Your task to perform on an android device: open the mobile data screen to see how much data has been used Image 0: 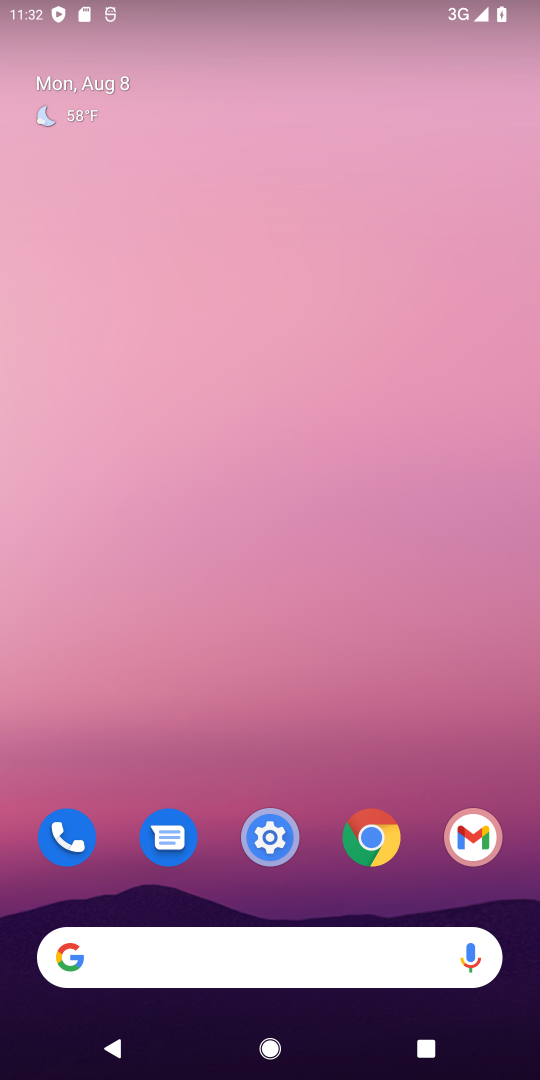
Step 0: click (268, 834)
Your task to perform on an android device: open the mobile data screen to see how much data has been used Image 1: 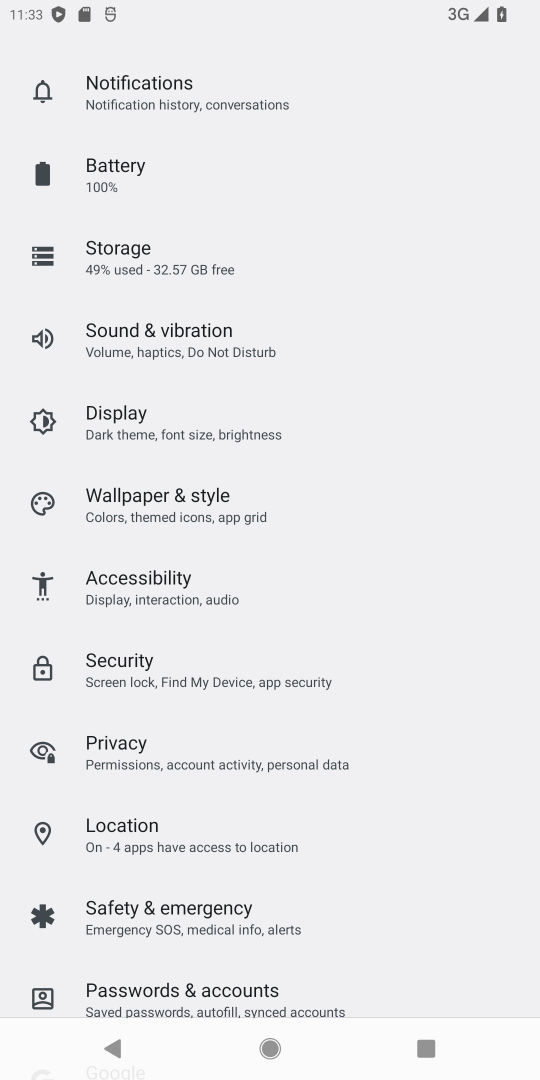
Step 1: drag from (269, 176) to (252, 824)
Your task to perform on an android device: open the mobile data screen to see how much data has been used Image 2: 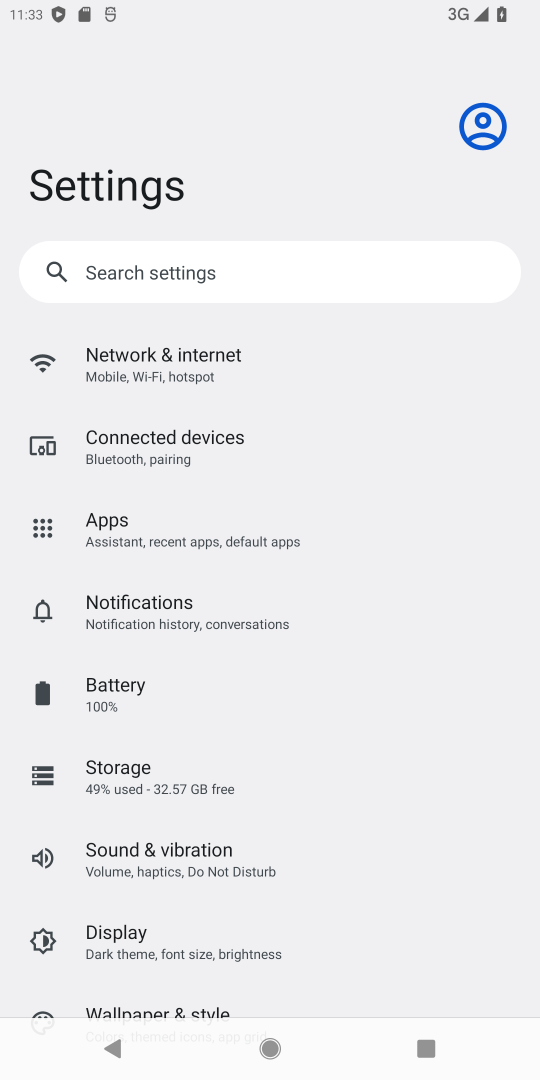
Step 2: click (144, 353)
Your task to perform on an android device: open the mobile data screen to see how much data has been used Image 3: 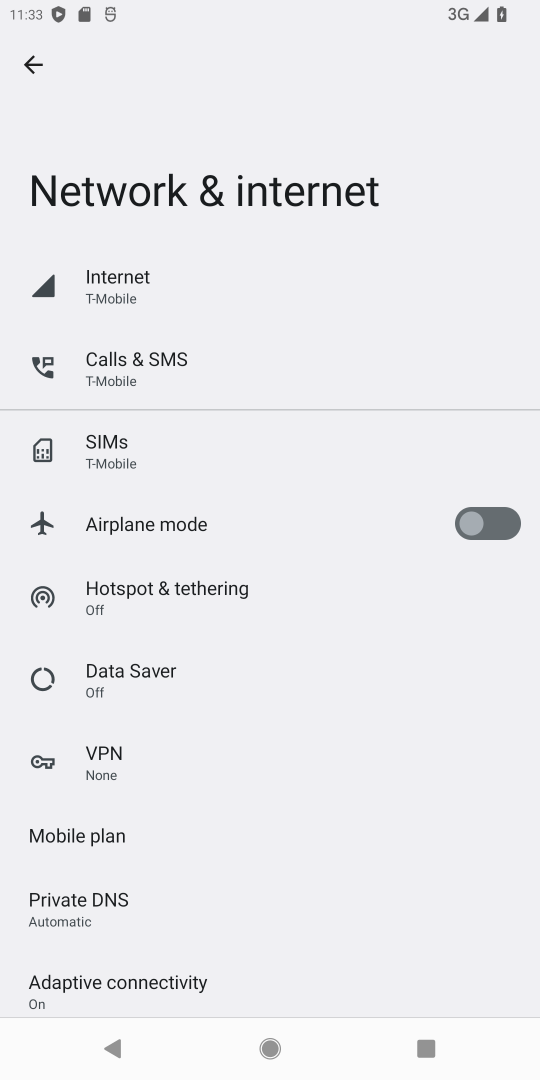
Step 3: click (99, 276)
Your task to perform on an android device: open the mobile data screen to see how much data has been used Image 4: 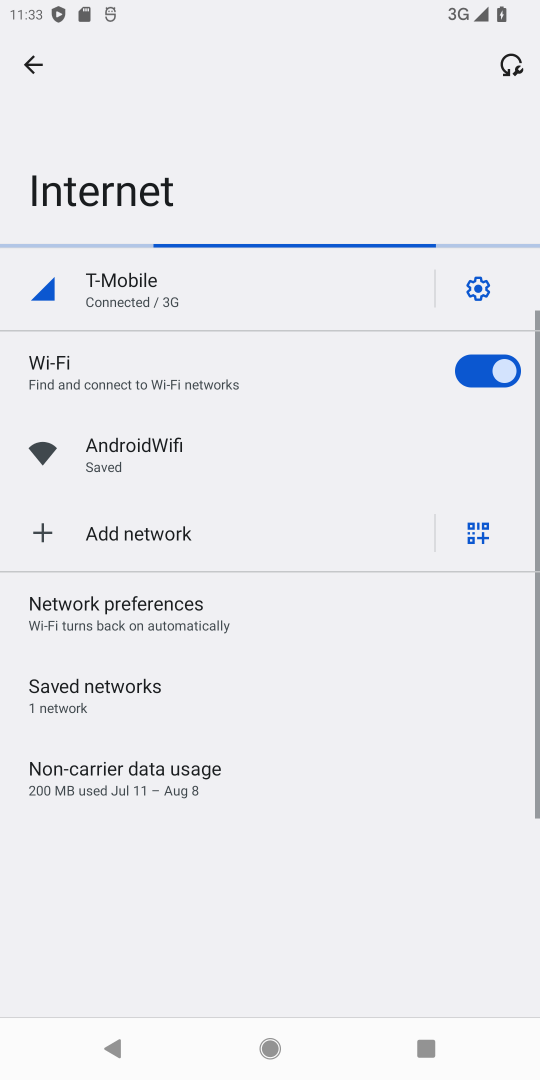
Step 4: click (72, 274)
Your task to perform on an android device: open the mobile data screen to see how much data has been used Image 5: 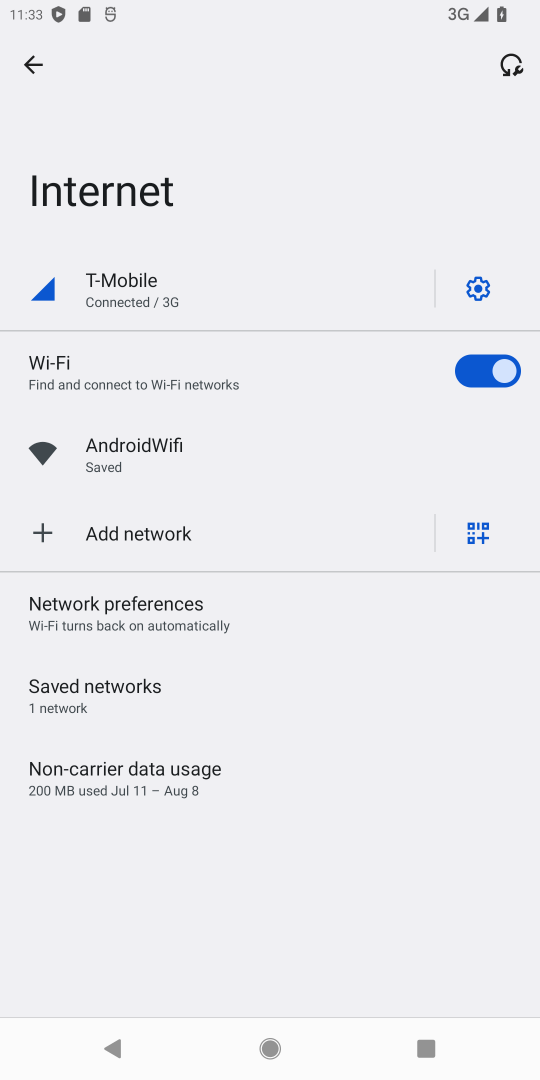
Step 5: click (109, 775)
Your task to perform on an android device: open the mobile data screen to see how much data has been used Image 6: 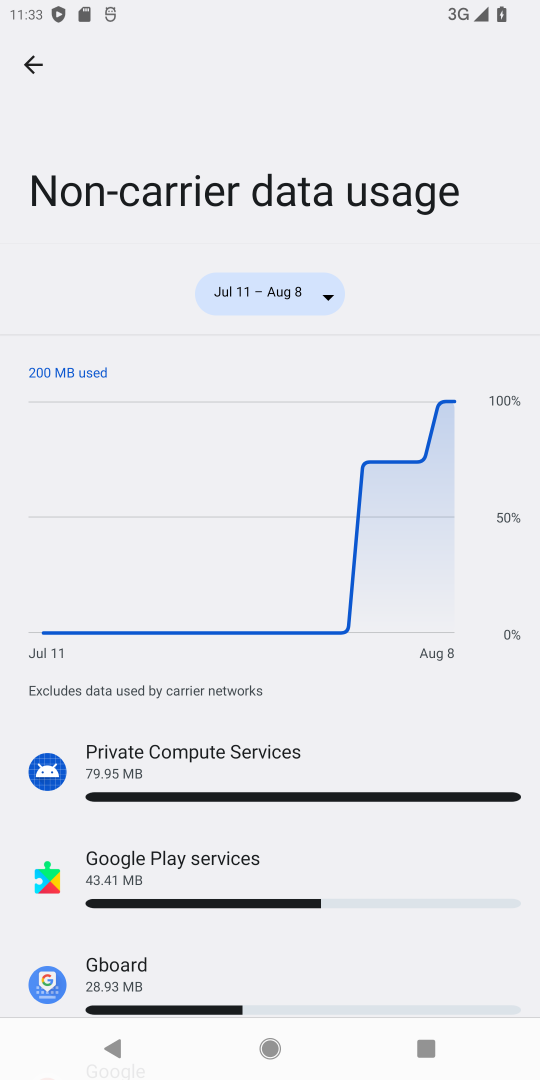
Step 6: task complete